Your task to perform on an android device: turn off sleep mode Image 0: 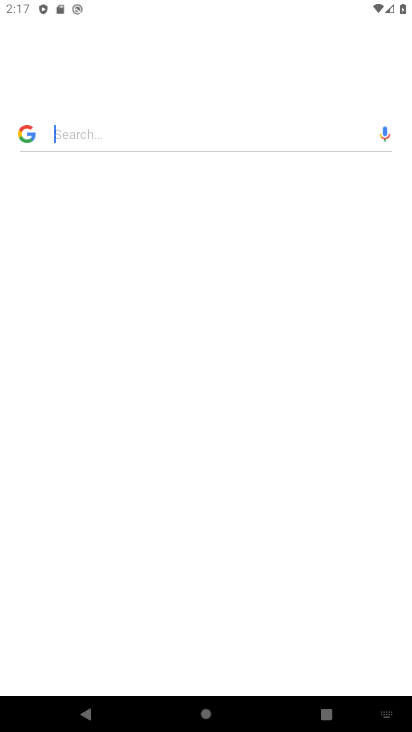
Step 0: press home button
Your task to perform on an android device: turn off sleep mode Image 1: 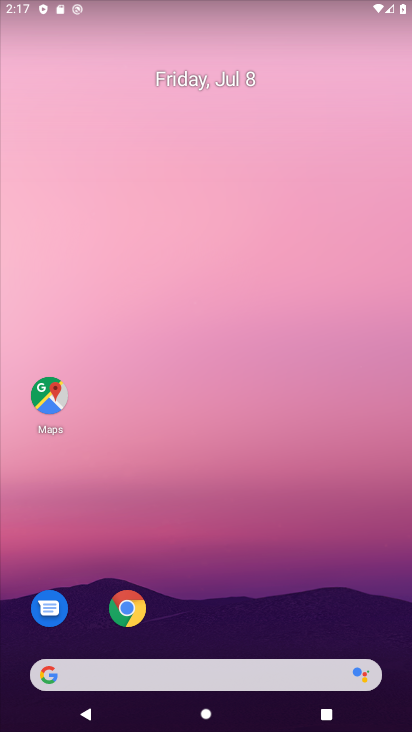
Step 1: press home button
Your task to perform on an android device: turn off sleep mode Image 2: 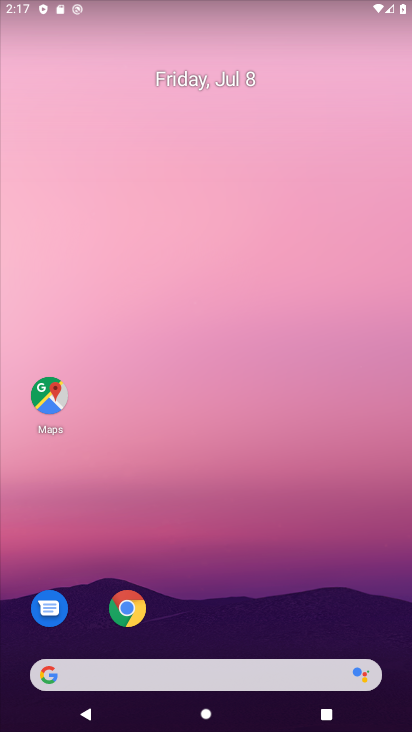
Step 2: drag from (277, 624) to (261, 202)
Your task to perform on an android device: turn off sleep mode Image 3: 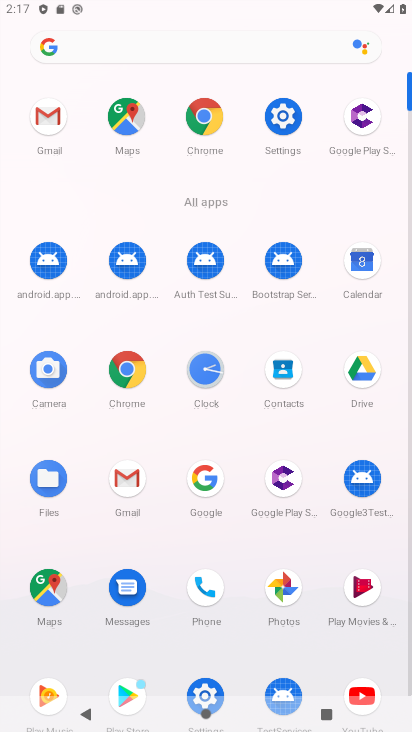
Step 3: click (299, 140)
Your task to perform on an android device: turn off sleep mode Image 4: 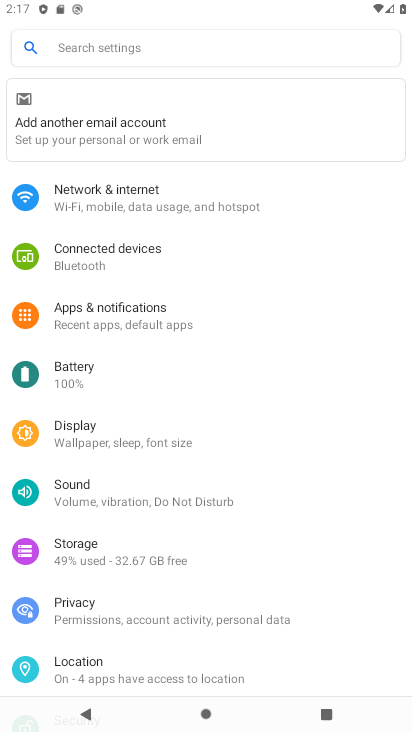
Step 4: click (145, 430)
Your task to perform on an android device: turn off sleep mode Image 5: 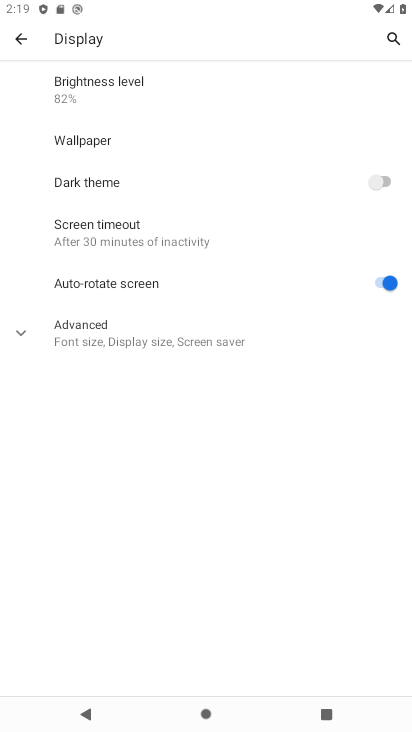
Step 5: task complete